Your task to perform on an android device: Open Yahoo.com Image 0: 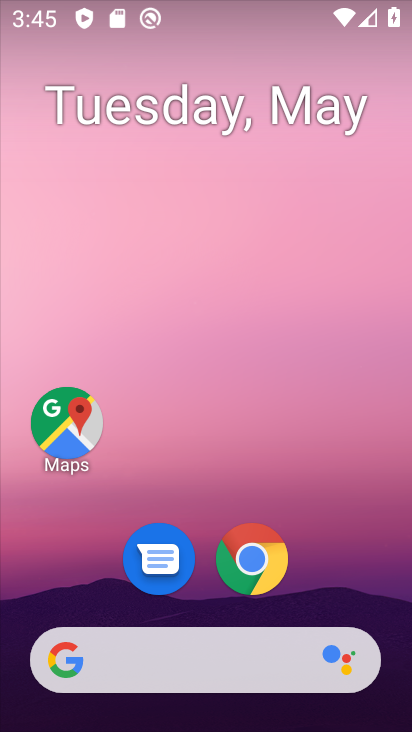
Step 0: drag from (348, 578) to (289, 115)
Your task to perform on an android device: Open Yahoo.com Image 1: 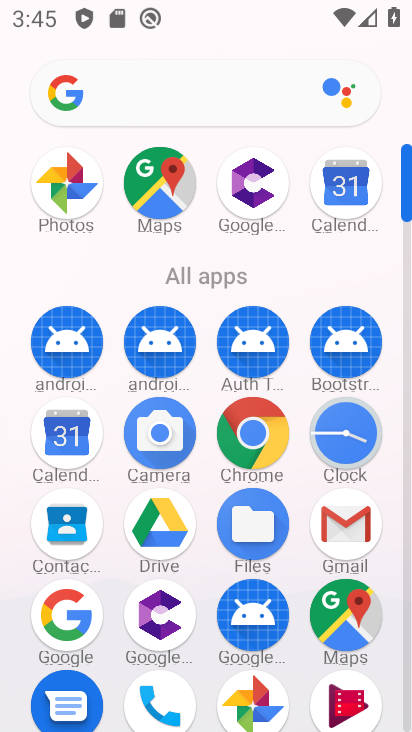
Step 1: click (279, 429)
Your task to perform on an android device: Open Yahoo.com Image 2: 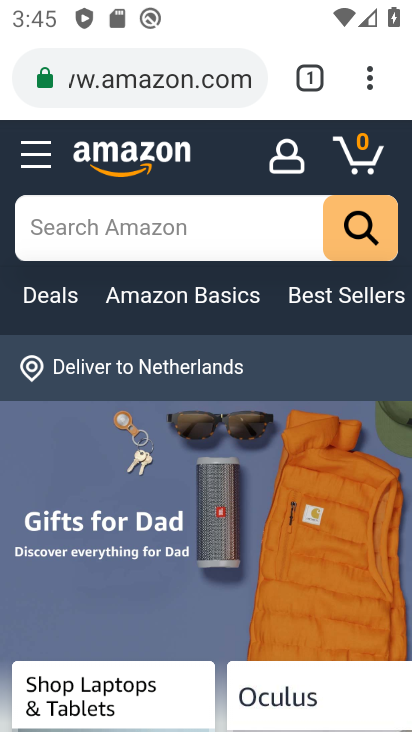
Step 2: click (190, 100)
Your task to perform on an android device: Open Yahoo.com Image 3: 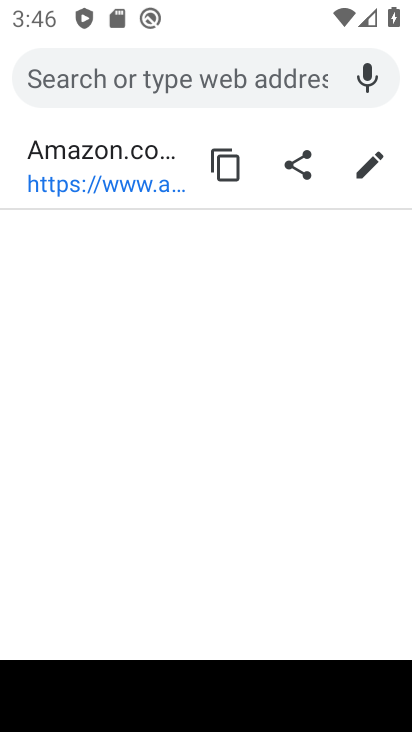
Step 3: type "yahoo.com"
Your task to perform on an android device: Open Yahoo.com Image 4: 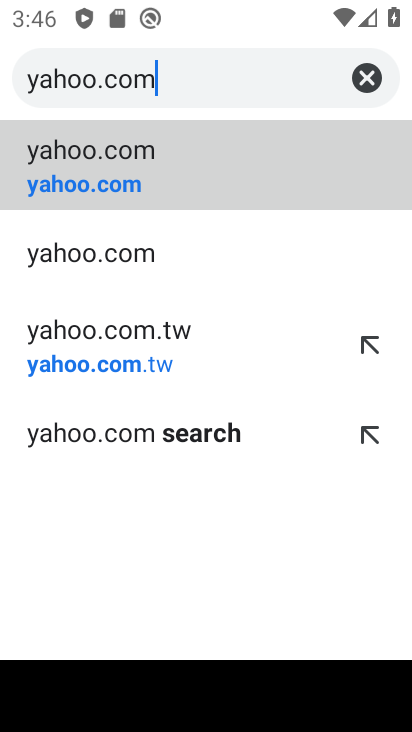
Step 4: click (103, 184)
Your task to perform on an android device: Open Yahoo.com Image 5: 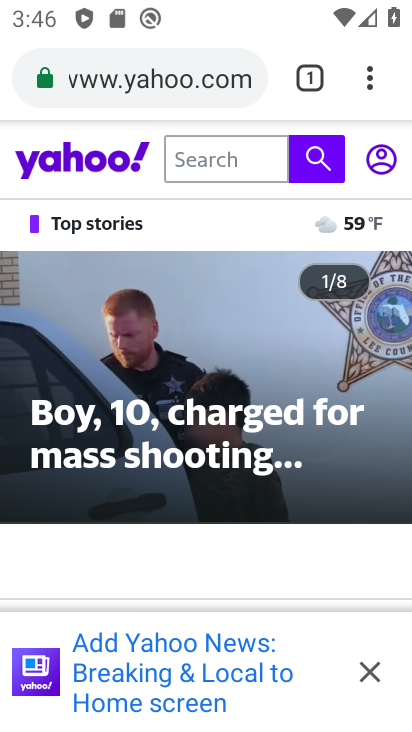
Step 5: task complete